Your task to perform on an android device: Search for "lg ultragear" on amazon, select the first entry, and add it to the cart. Image 0: 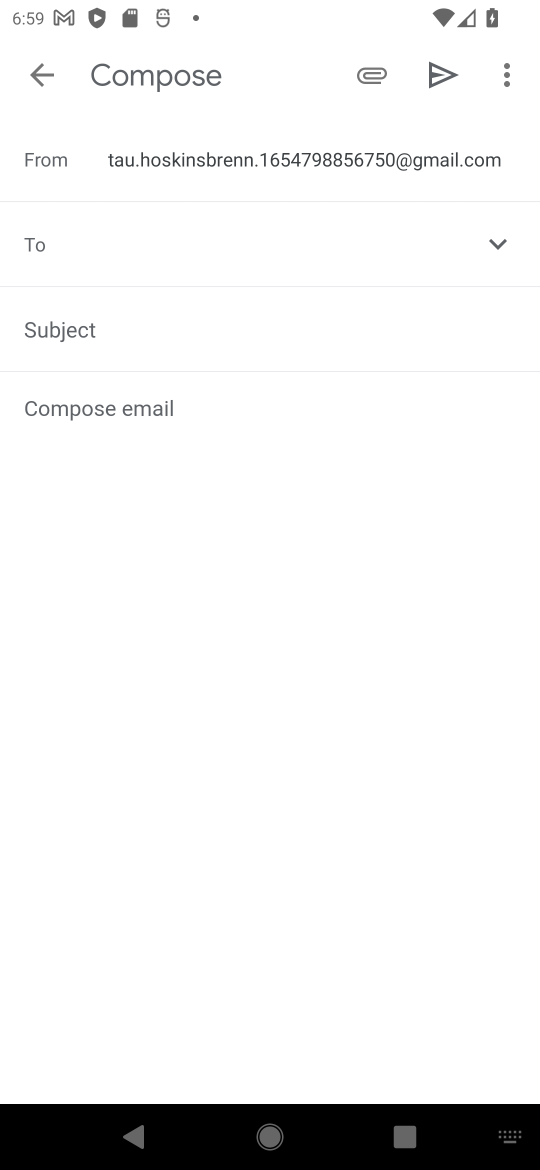
Step 0: press home button
Your task to perform on an android device: Search for "lg ultragear" on amazon, select the first entry, and add it to the cart. Image 1: 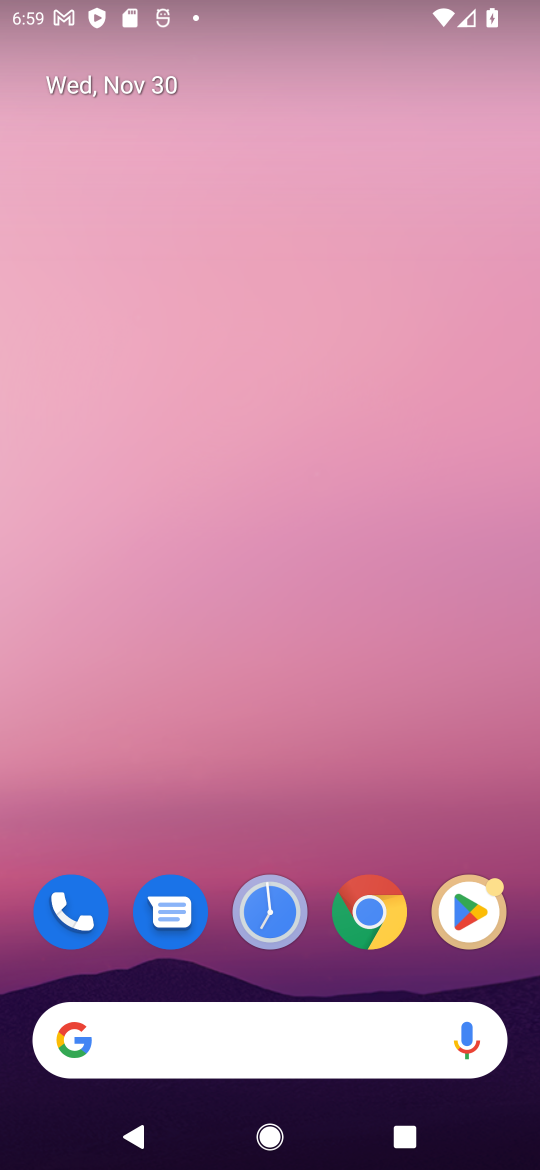
Step 1: click (247, 1045)
Your task to perform on an android device: Search for "lg ultragear" on amazon, select the first entry, and add it to the cart. Image 2: 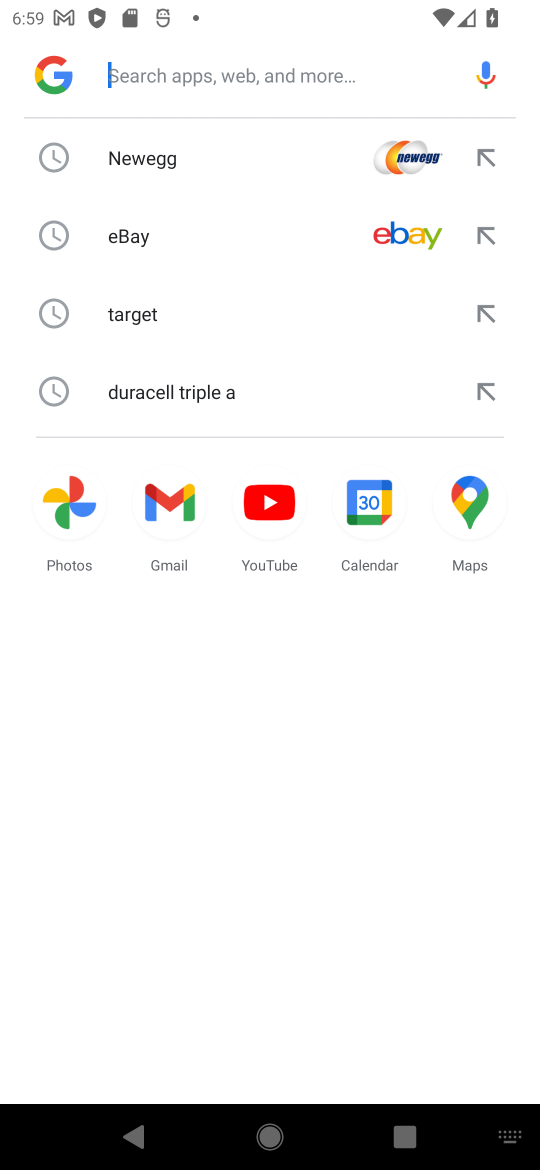
Step 2: type "amazon"
Your task to perform on an android device: Search for "lg ultragear" on amazon, select the first entry, and add it to the cart. Image 3: 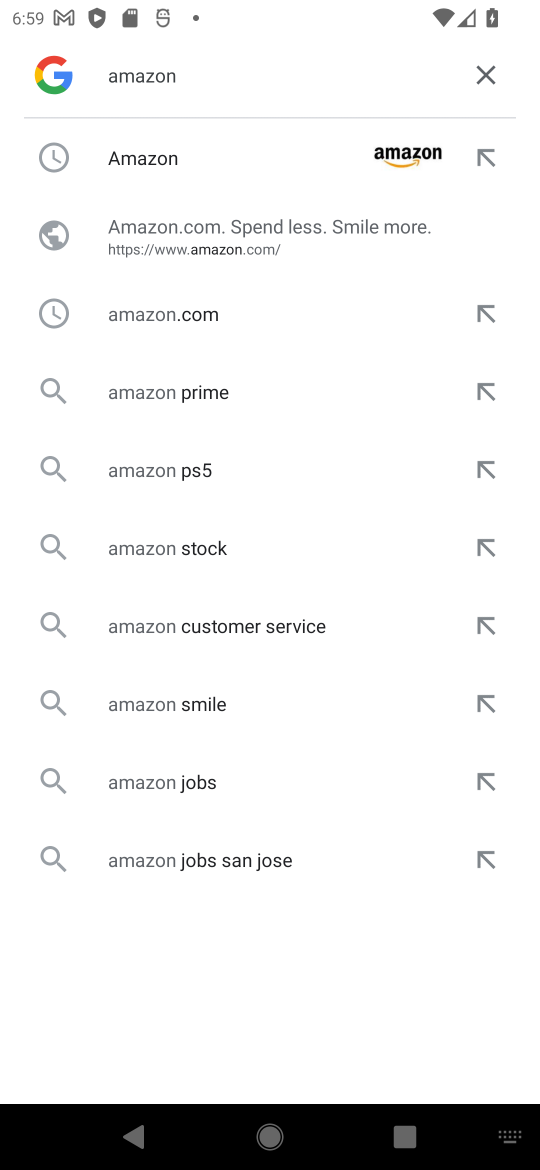
Step 3: click (302, 152)
Your task to perform on an android device: Search for "lg ultragear" on amazon, select the first entry, and add it to the cart. Image 4: 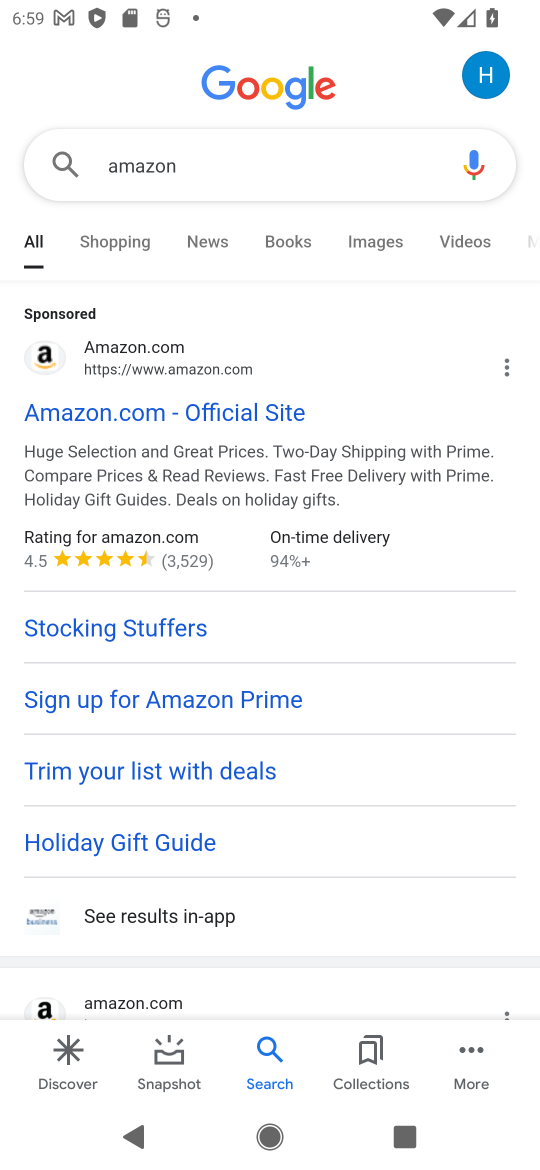
Step 4: click (137, 346)
Your task to perform on an android device: Search for "lg ultragear" on amazon, select the first entry, and add it to the cart. Image 5: 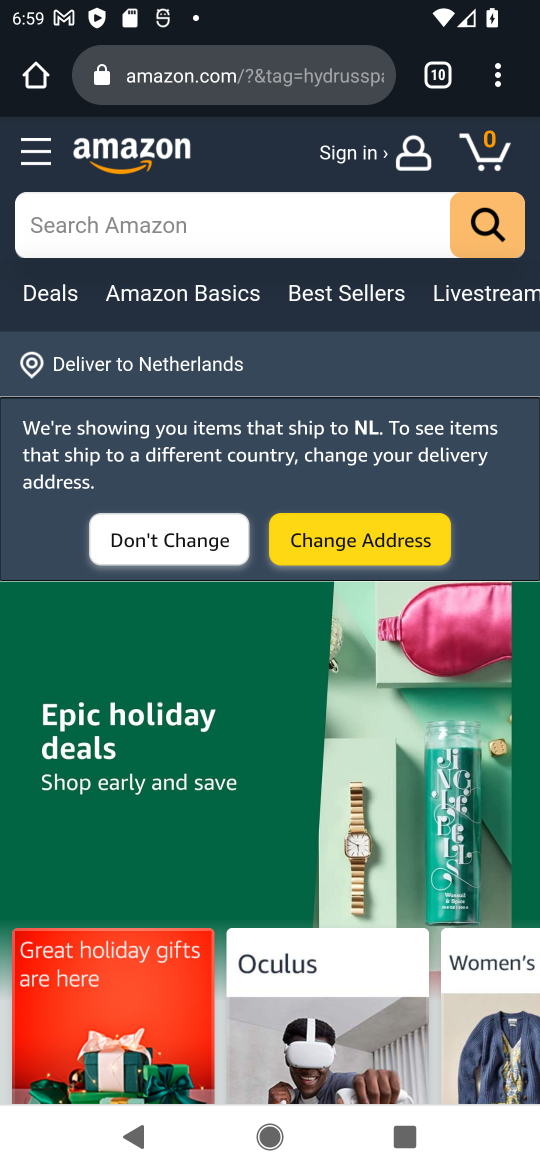
Step 5: click (201, 228)
Your task to perform on an android device: Search for "lg ultragear" on amazon, select the first entry, and add it to the cart. Image 6: 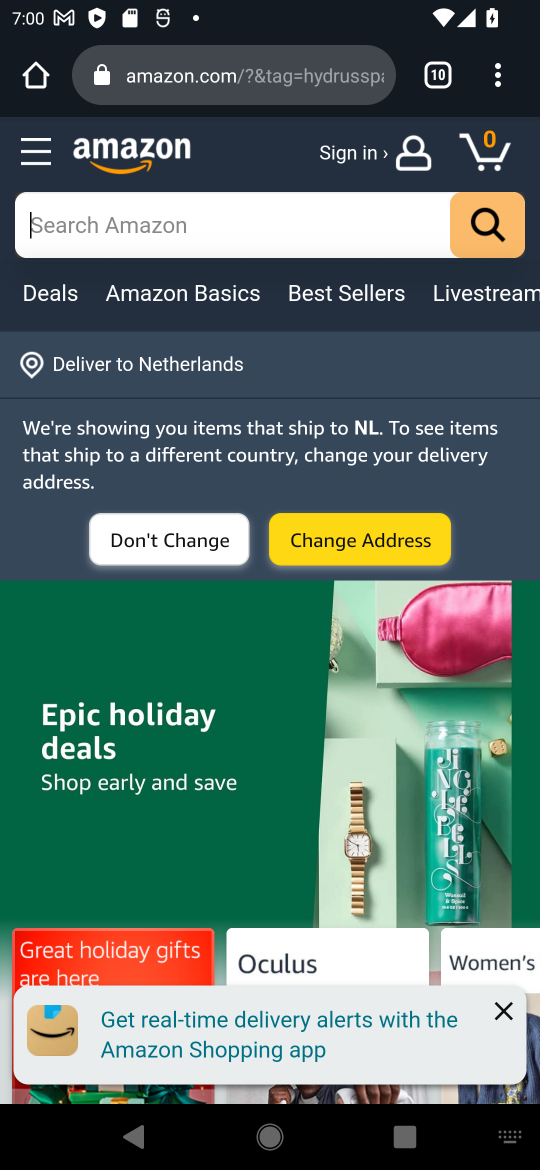
Step 6: type "lg ultragear"
Your task to perform on an android device: Search for "lg ultragear" on amazon, select the first entry, and add it to the cart. Image 7: 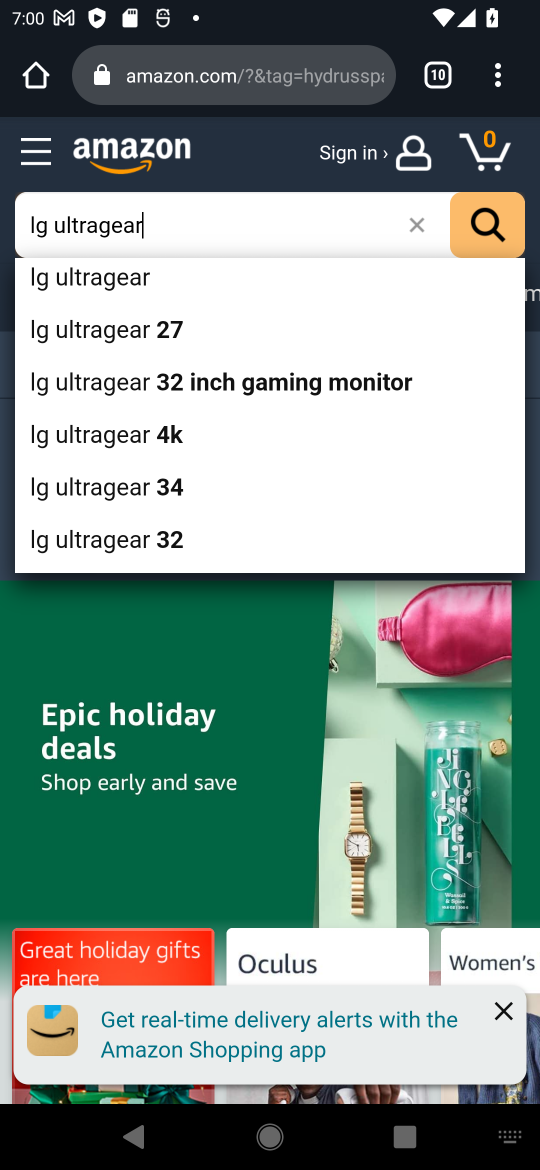
Step 7: click (147, 296)
Your task to perform on an android device: Search for "lg ultragear" on amazon, select the first entry, and add it to the cart. Image 8: 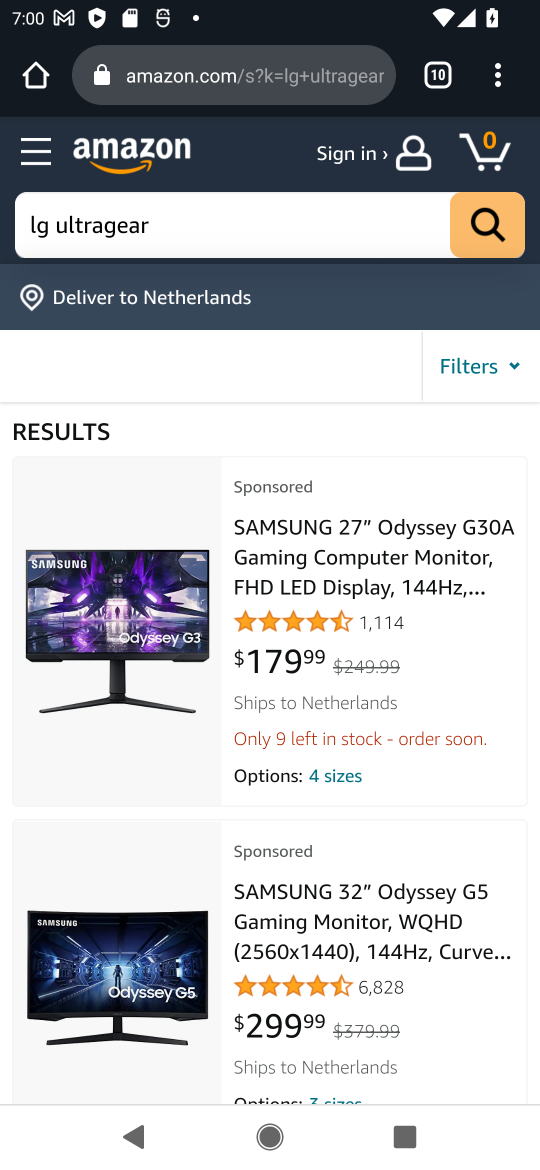
Step 8: click (238, 551)
Your task to perform on an android device: Search for "lg ultragear" on amazon, select the first entry, and add it to the cart. Image 9: 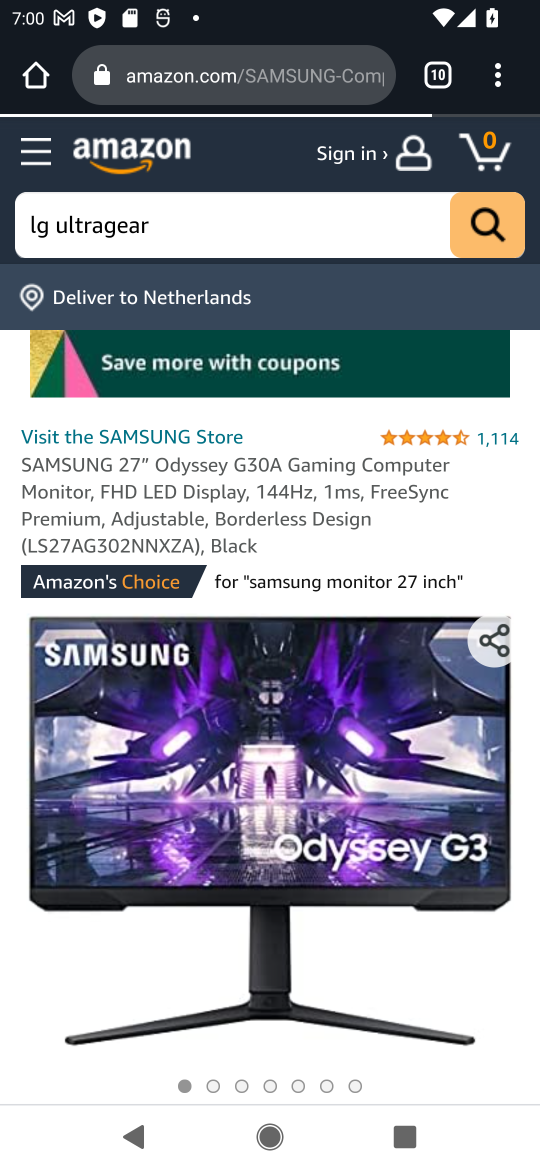
Step 9: drag from (363, 887) to (315, 559)
Your task to perform on an android device: Search for "lg ultragear" on amazon, select the first entry, and add it to the cart. Image 10: 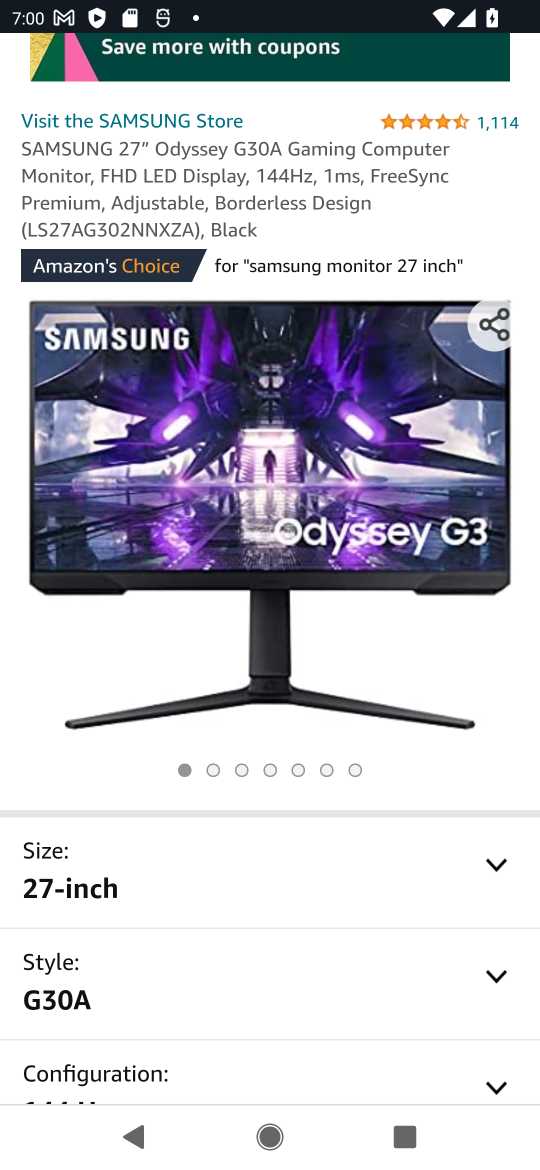
Step 10: drag from (261, 904) to (252, 484)
Your task to perform on an android device: Search for "lg ultragear" on amazon, select the first entry, and add it to the cart. Image 11: 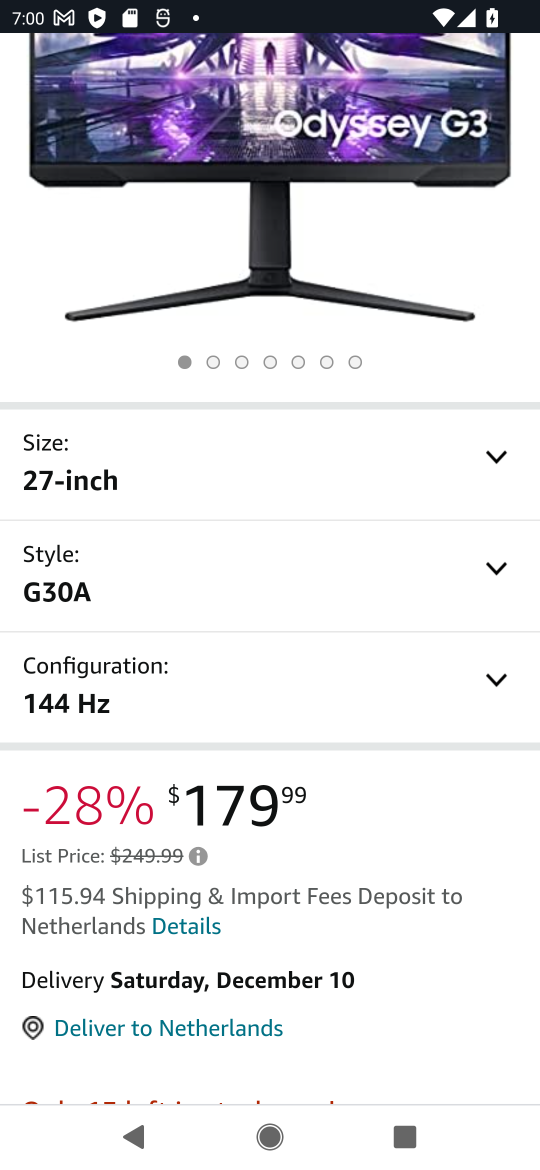
Step 11: drag from (245, 925) to (245, 582)
Your task to perform on an android device: Search for "lg ultragear" on amazon, select the first entry, and add it to the cart. Image 12: 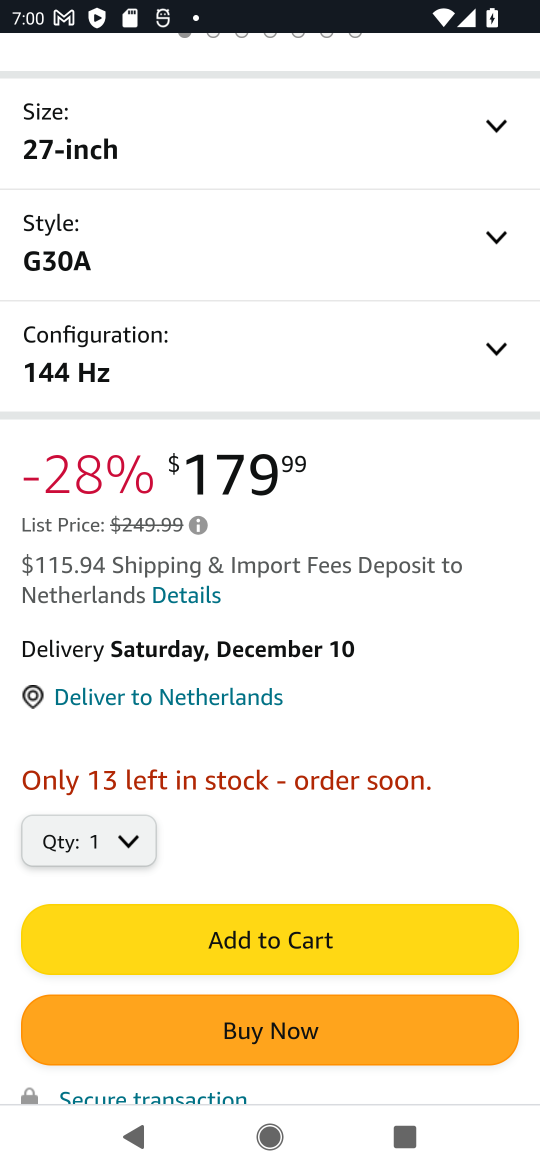
Step 12: click (247, 945)
Your task to perform on an android device: Search for "lg ultragear" on amazon, select the first entry, and add it to the cart. Image 13: 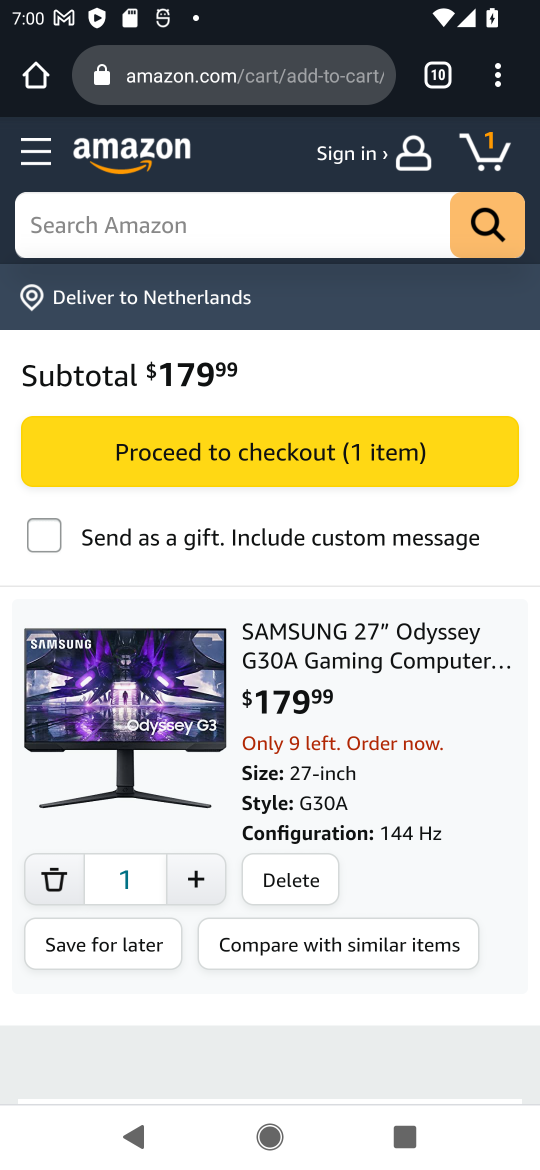
Step 13: task complete